Your task to perform on an android device: move a message to another label in the gmail app Image 0: 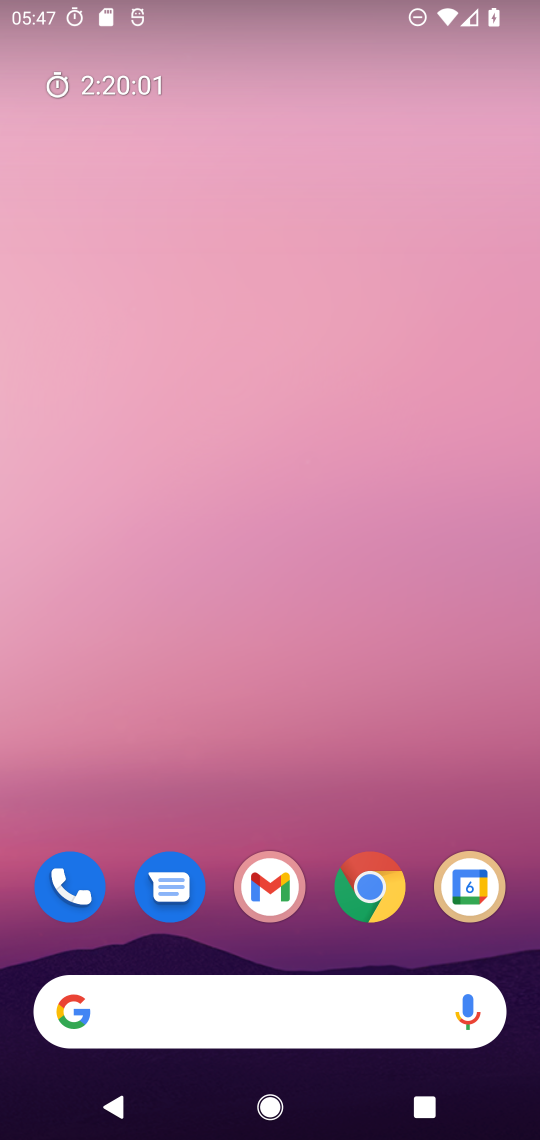
Step 0: press home button
Your task to perform on an android device: move a message to another label in the gmail app Image 1: 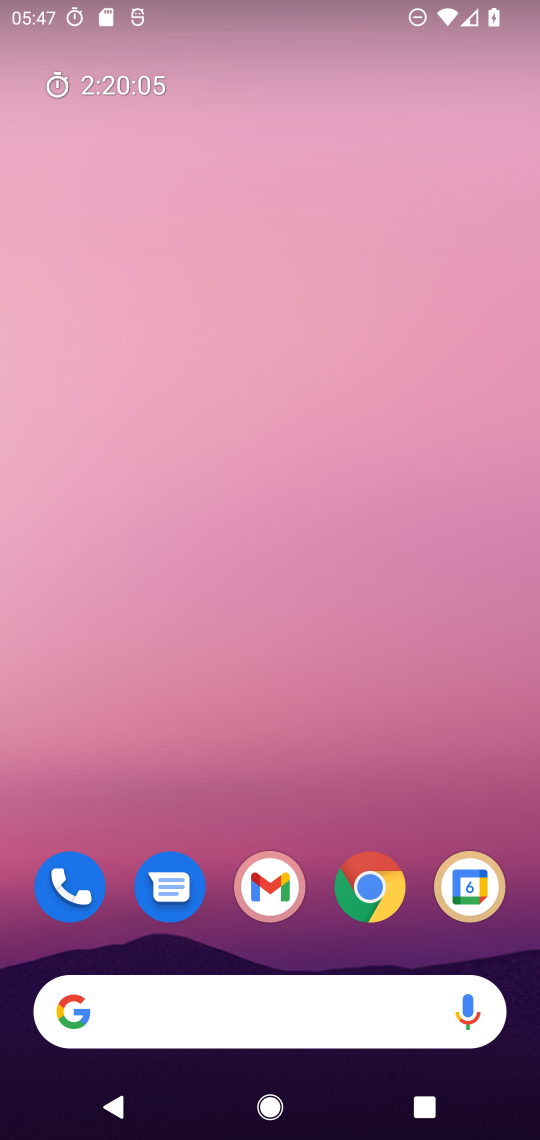
Step 1: drag from (396, 730) to (409, 316)
Your task to perform on an android device: move a message to another label in the gmail app Image 2: 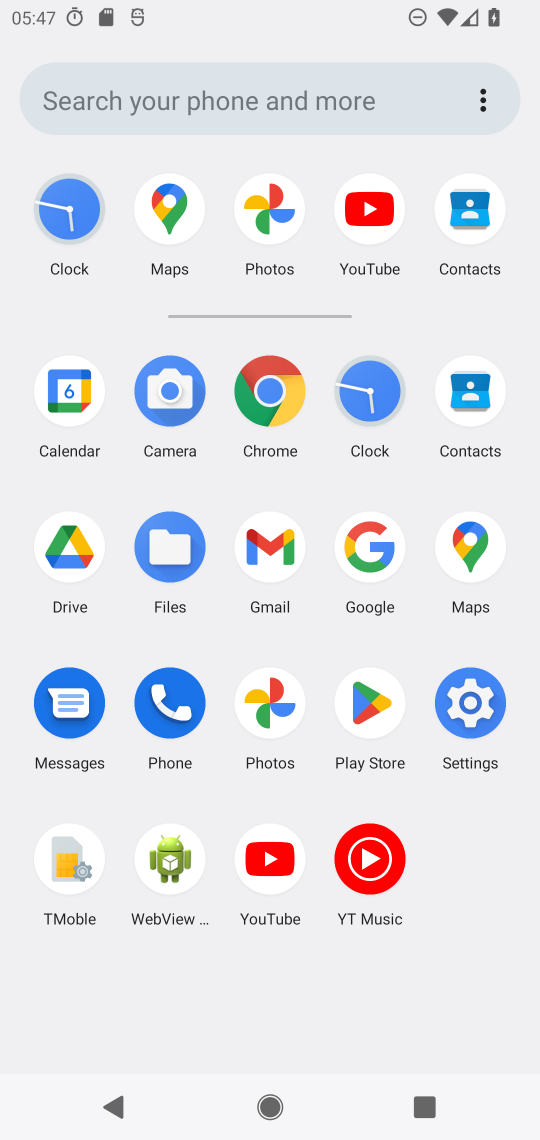
Step 2: click (261, 554)
Your task to perform on an android device: move a message to another label in the gmail app Image 3: 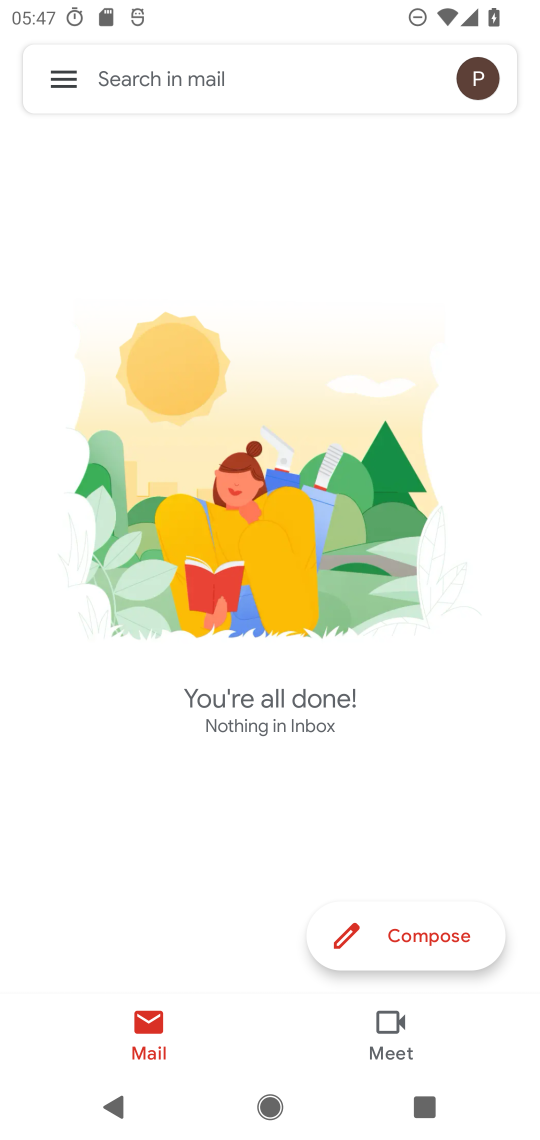
Step 3: task complete